Your task to perform on an android device: Open the web browser Image 0: 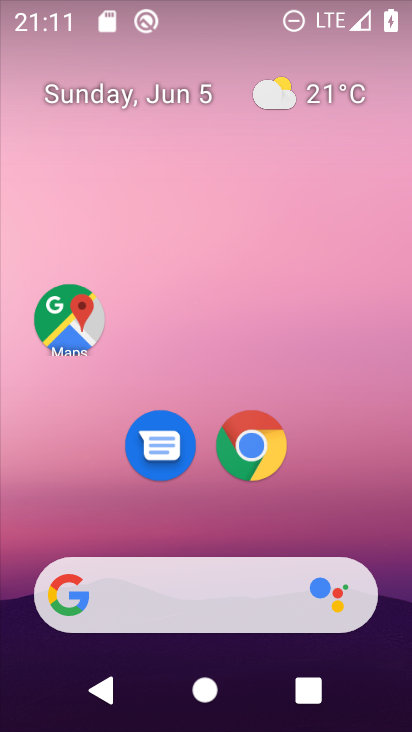
Step 0: click (206, 585)
Your task to perform on an android device: Open the web browser Image 1: 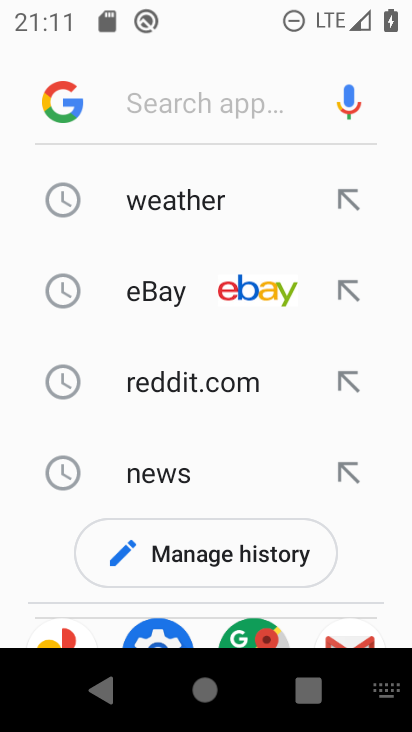
Step 1: click (300, 105)
Your task to perform on an android device: Open the web browser Image 2: 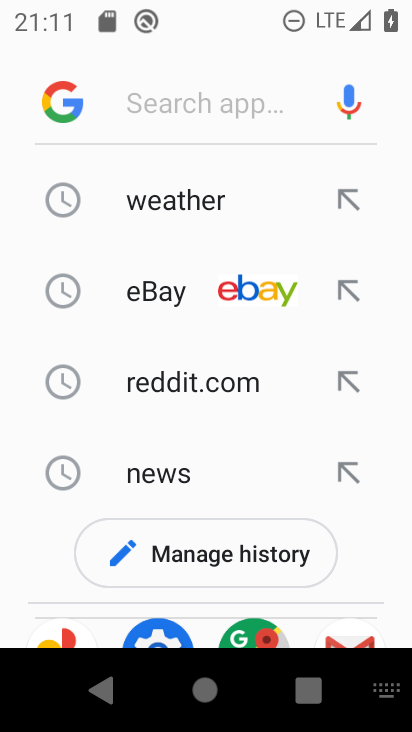
Step 2: click (59, 84)
Your task to perform on an android device: Open the web browser Image 3: 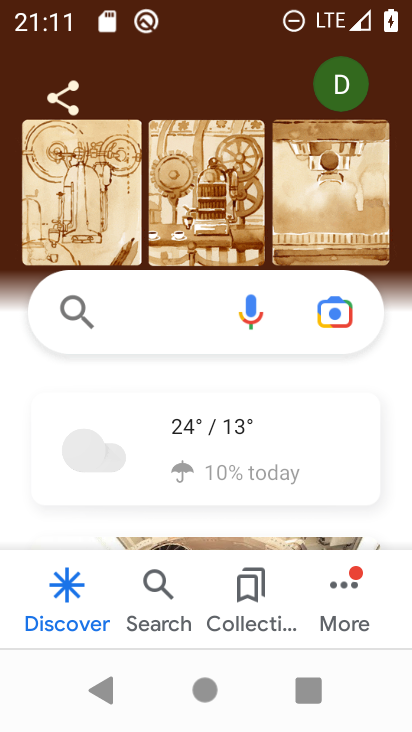
Step 3: task complete